Your task to perform on an android device: turn on wifi Image 0: 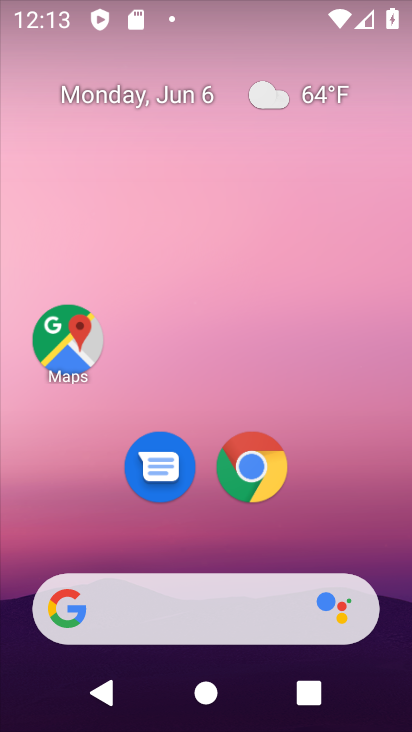
Step 0: drag from (387, 526) to (315, 145)
Your task to perform on an android device: turn on wifi Image 1: 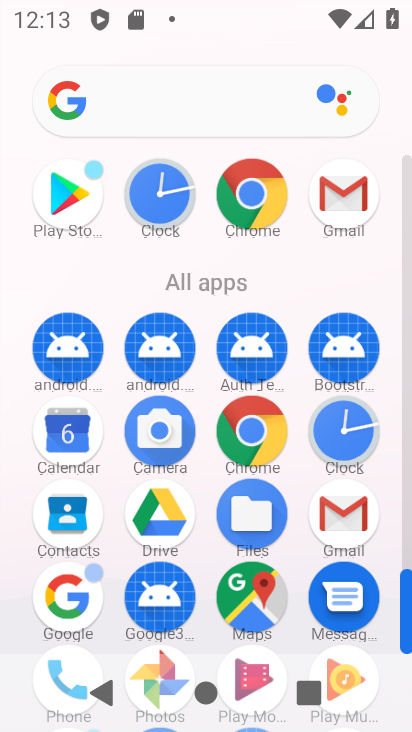
Step 1: task complete